Your task to perform on an android device: turn on the 24-hour format for clock Image 0: 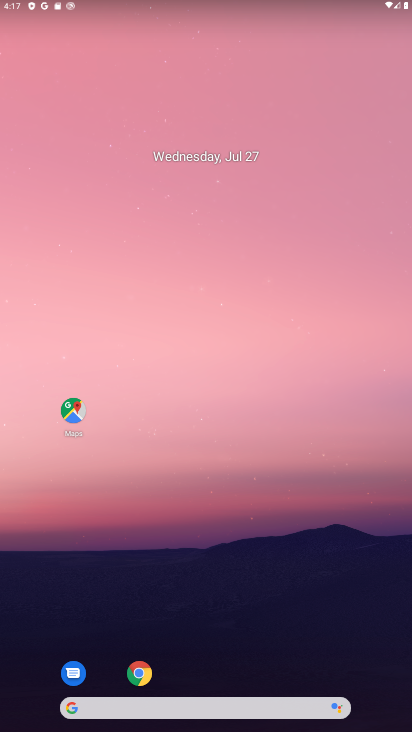
Step 0: drag from (385, 677) to (310, 106)
Your task to perform on an android device: turn on the 24-hour format for clock Image 1: 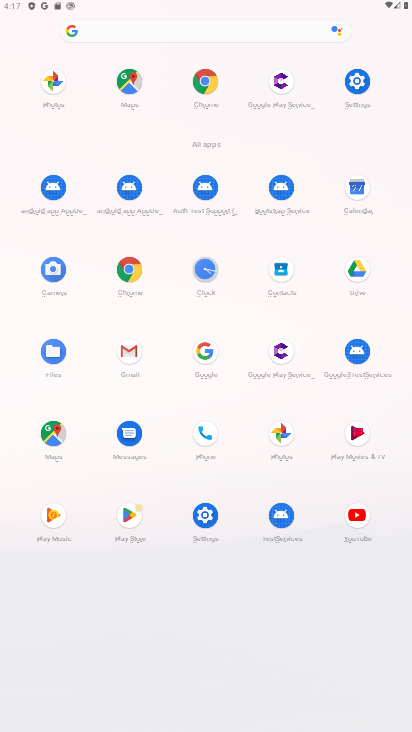
Step 1: click (201, 266)
Your task to perform on an android device: turn on the 24-hour format for clock Image 2: 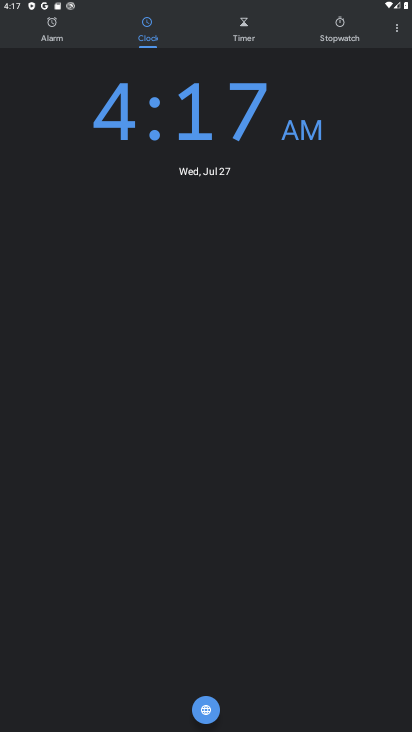
Step 2: click (395, 34)
Your task to perform on an android device: turn on the 24-hour format for clock Image 3: 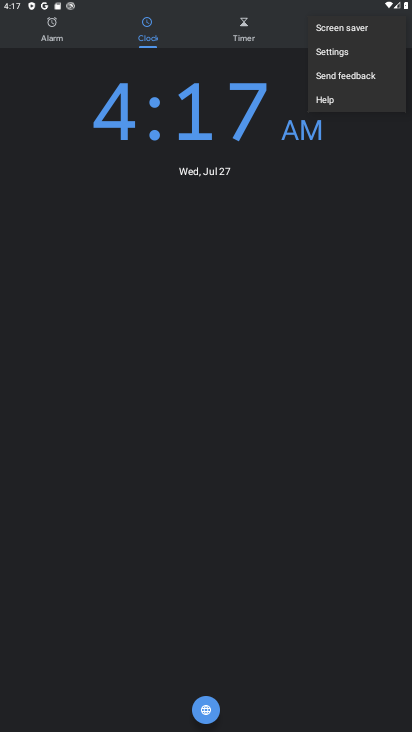
Step 3: click (333, 52)
Your task to perform on an android device: turn on the 24-hour format for clock Image 4: 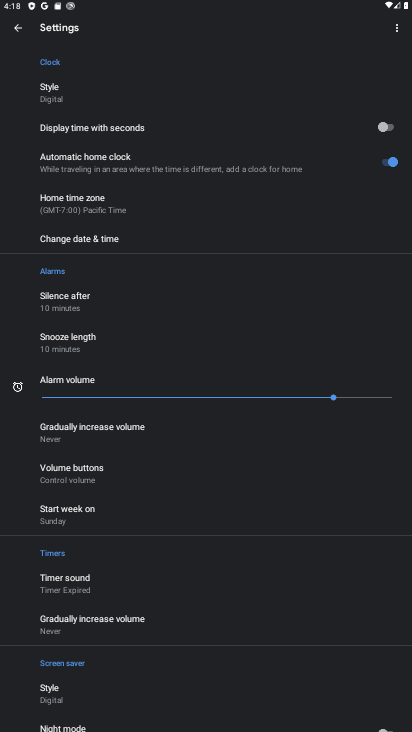
Step 4: click (87, 244)
Your task to perform on an android device: turn on the 24-hour format for clock Image 5: 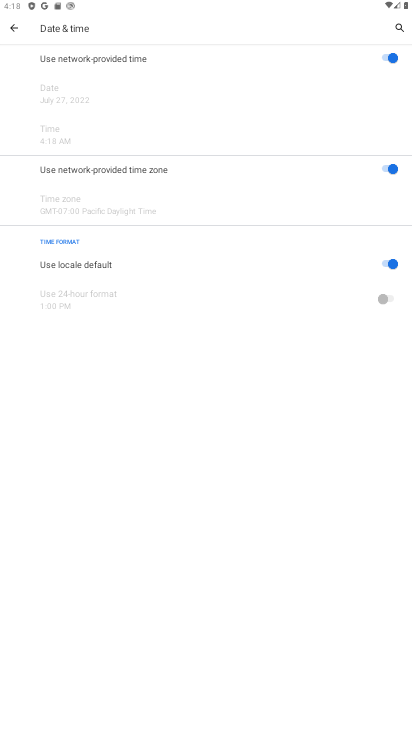
Step 5: click (383, 262)
Your task to perform on an android device: turn on the 24-hour format for clock Image 6: 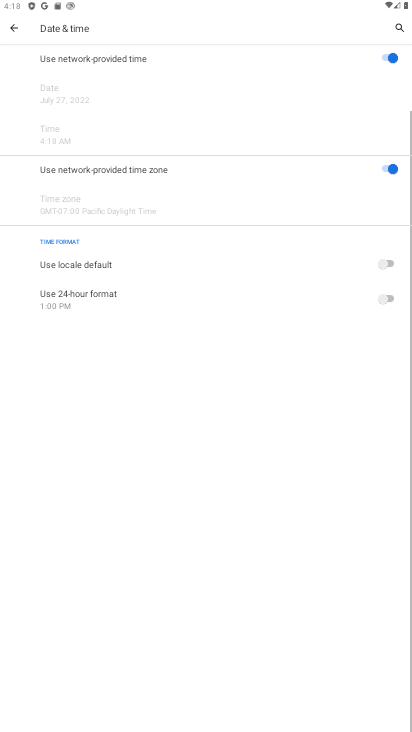
Step 6: click (392, 299)
Your task to perform on an android device: turn on the 24-hour format for clock Image 7: 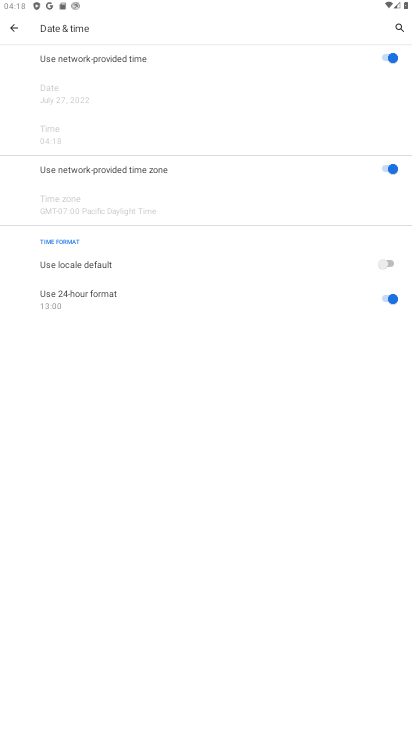
Step 7: task complete